Your task to perform on an android device: Open internet settings Image 0: 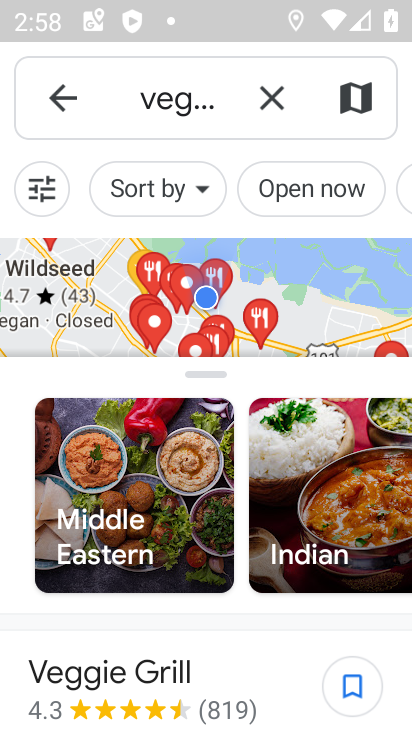
Step 0: press home button
Your task to perform on an android device: Open internet settings Image 1: 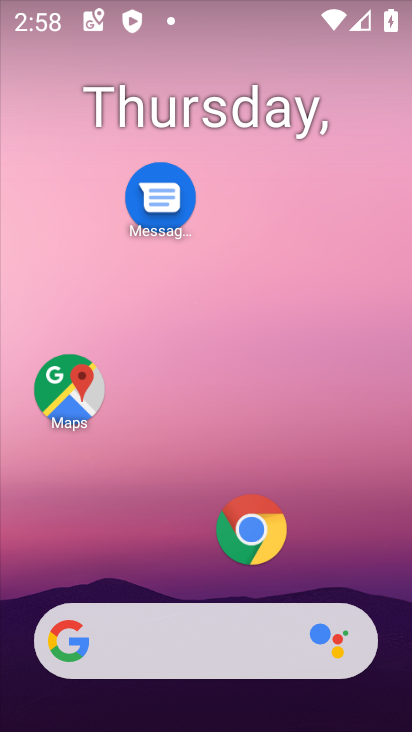
Step 1: drag from (131, 566) to (212, 135)
Your task to perform on an android device: Open internet settings Image 2: 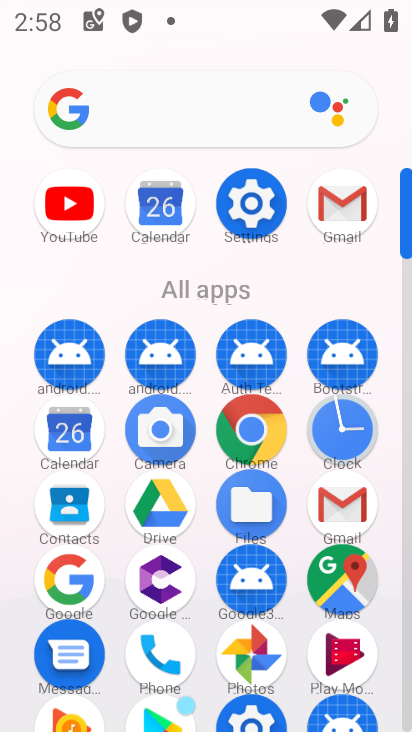
Step 2: click (252, 192)
Your task to perform on an android device: Open internet settings Image 3: 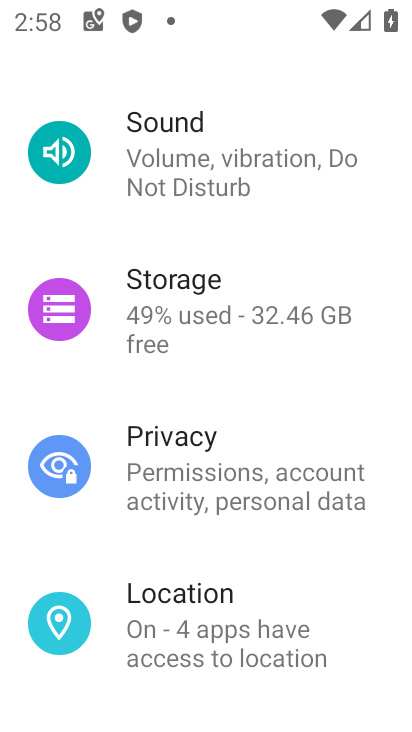
Step 3: drag from (233, 211) to (252, 635)
Your task to perform on an android device: Open internet settings Image 4: 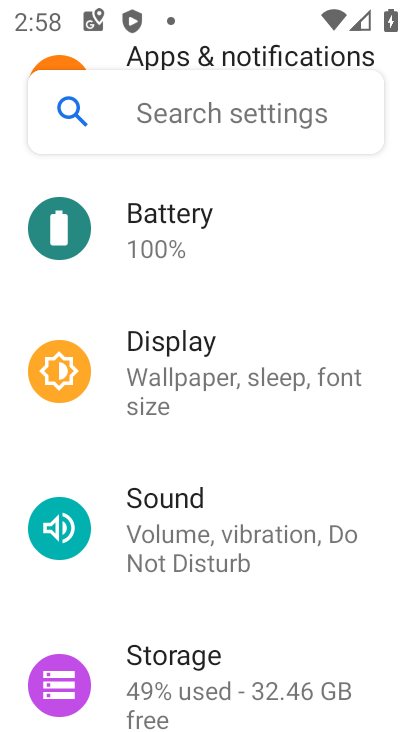
Step 4: drag from (221, 210) to (260, 677)
Your task to perform on an android device: Open internet settings Image 5: 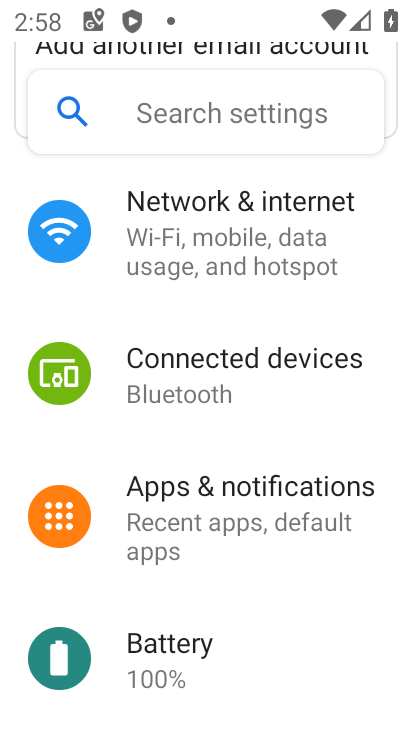
Step 5: click (220, 254)
Your task to perform on an android device: Open internet settings Image 6: 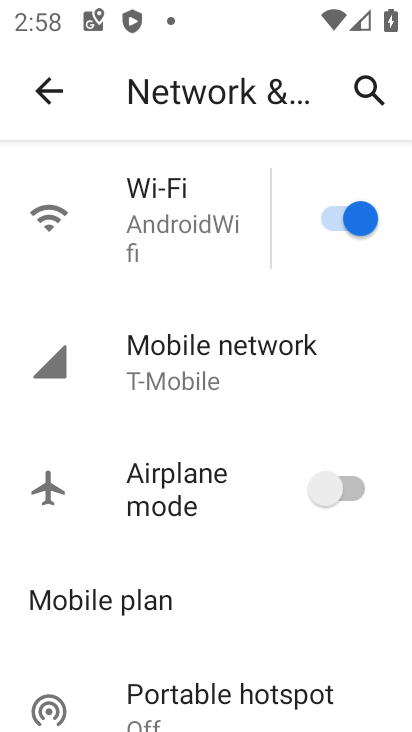
Step 6: task complete